Your task to perform on an android device: Open Yahoo.com Image 0: 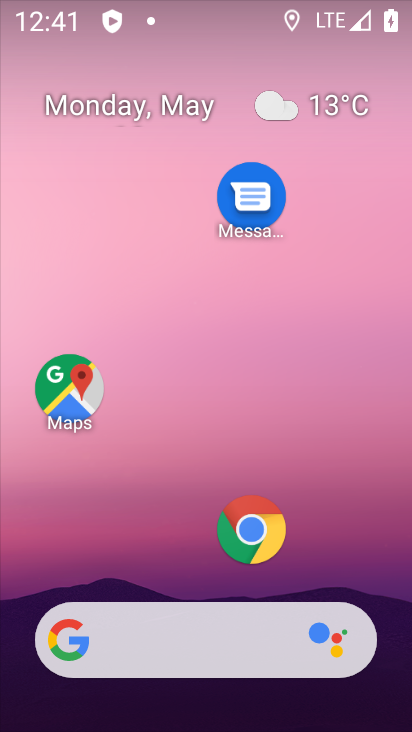
Step 0: click (247, 535)
Your task to perform on an android device: Open Yahoo.com Image 1: 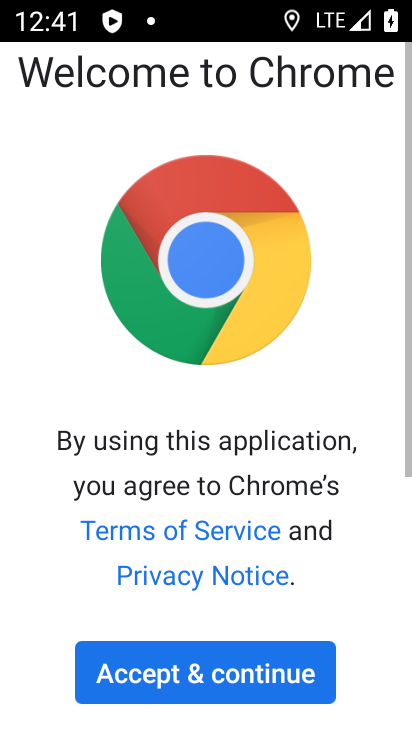
Step 1: click (277, 681)
Your task to perform on an android device: Open Yahoo.com Image 2: 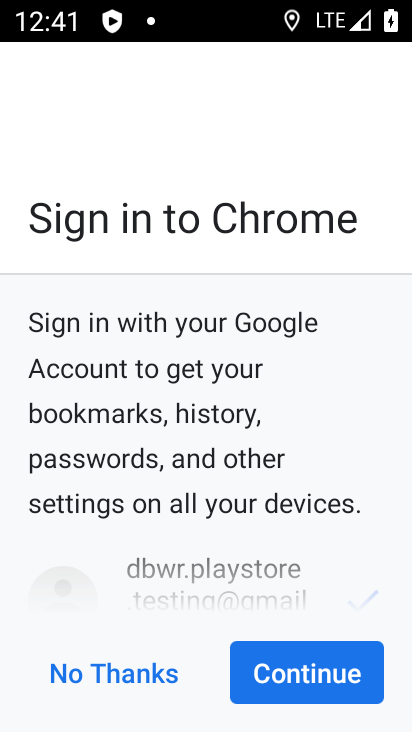
Step 2: click (328, 680)
Your task to perform on an android device: Open Yahoo.com Image 3: 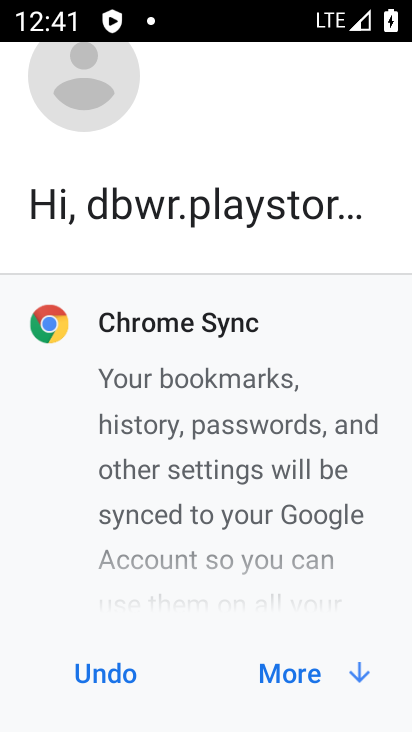
Step 3: click (289, 681)
Your task to perform on an android device: Open Yahoo.com Image 4: 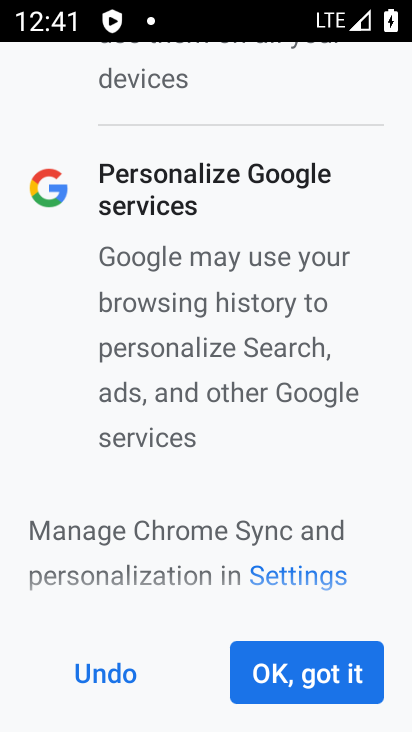
Step 4: click (330, 686)
Your task to perform on an android device: Open Yahoo.com Image 5: 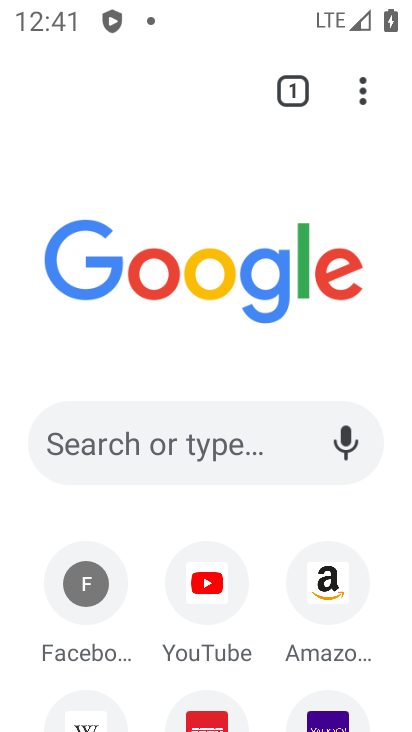
Step 5: click (329, 715)
Your task to perform on an android device: Open Yahoo.com Image 6: 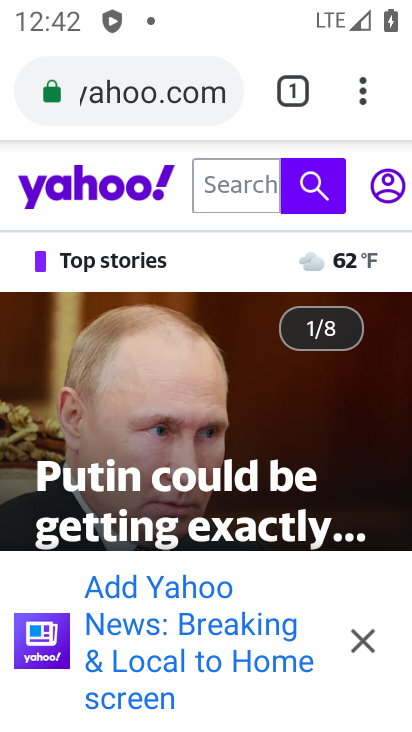
Step 6: task complete